Your task to perform on an android device: Open calendar and show me the fourth week of next month Image 0: 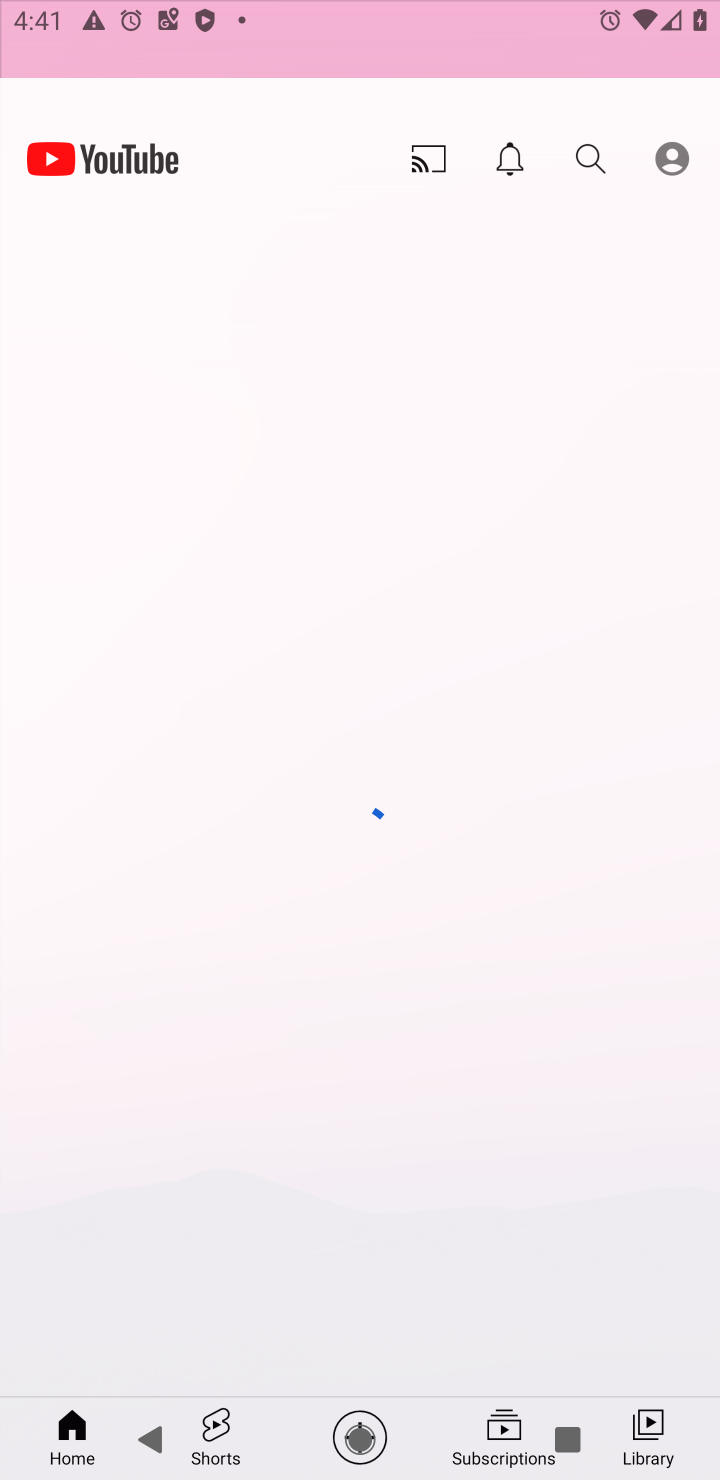
Step 0: press home button
Your task to perform on an android device: Open calendar and show me the fourth week of next month Image 1: 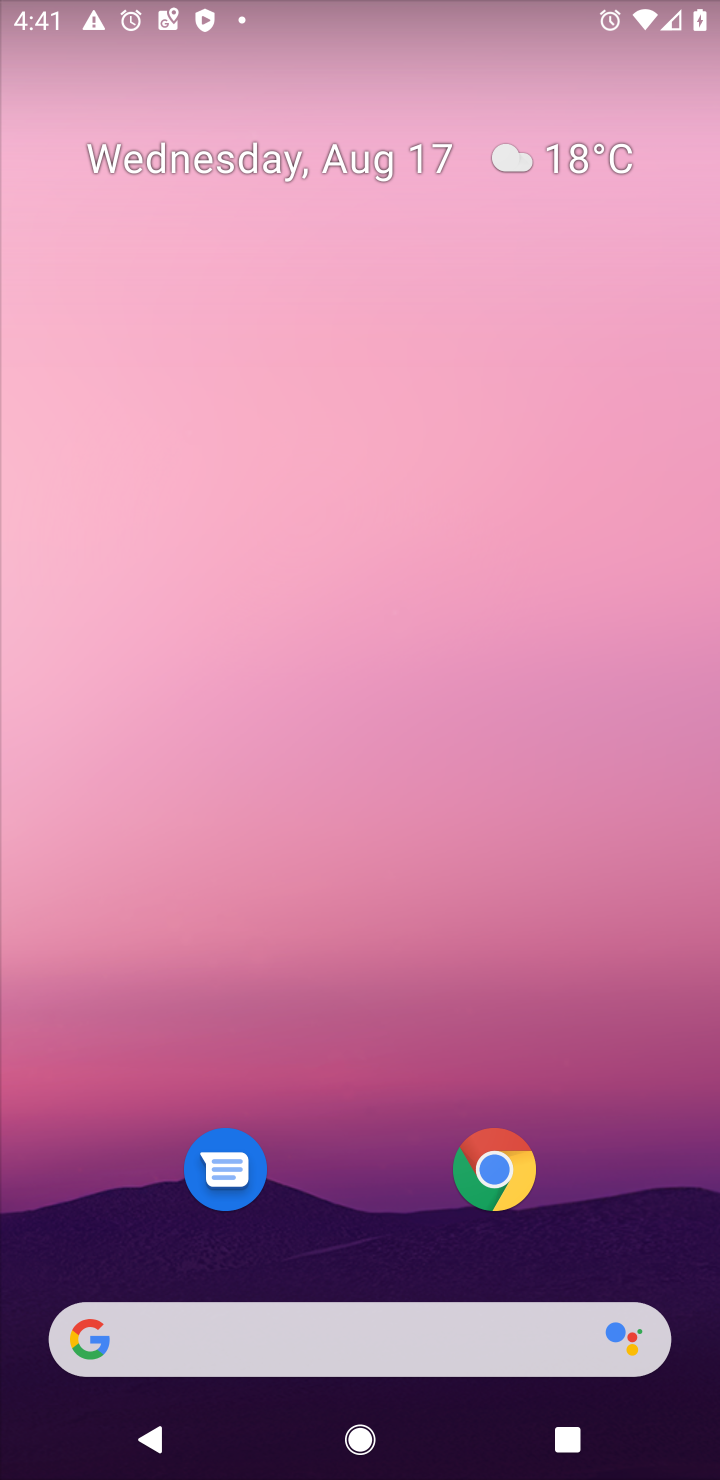
Step 1: drag from (330, 23) to (310, 1001)
Your task to perform on an android device: Open calendar and show me the fourth week of next month Image 2: 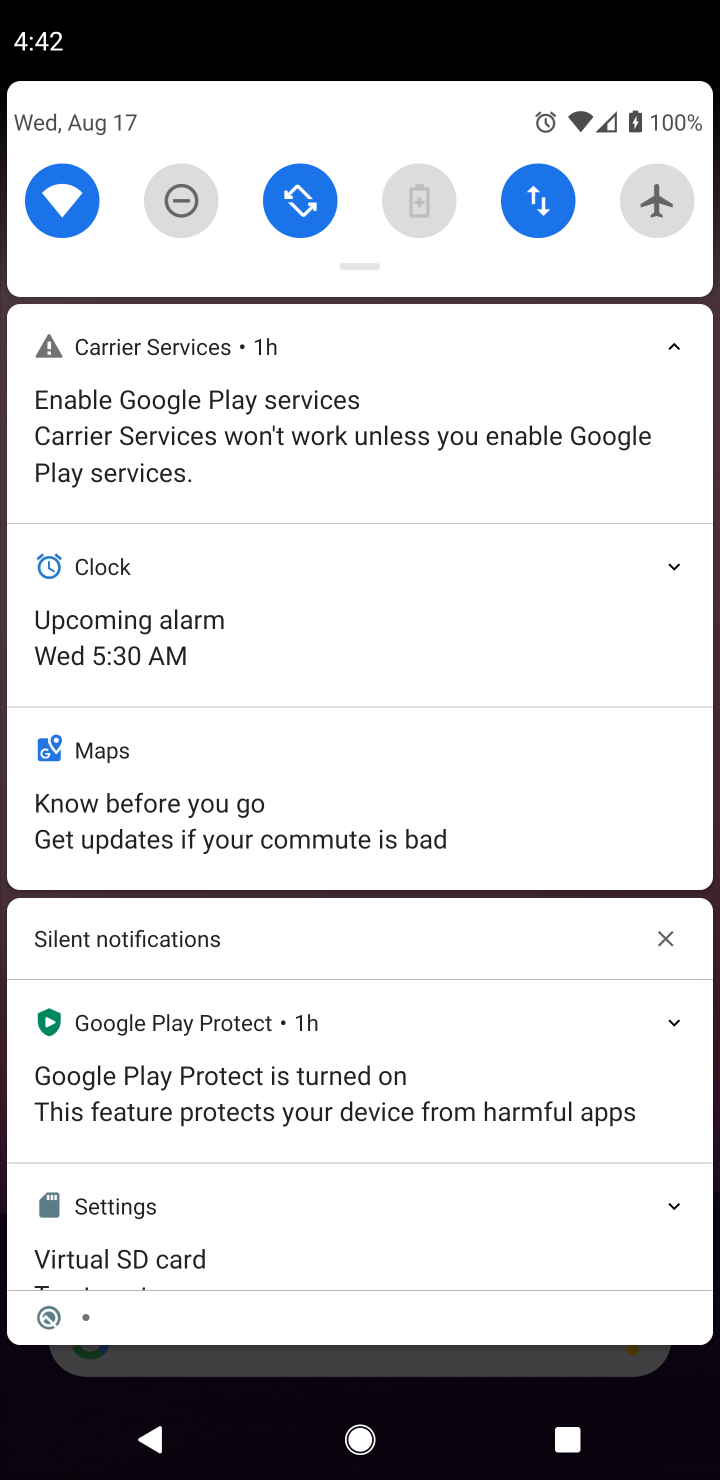
Step 2: press home button
Your task to perform on an android device: Open calendar and show me the fourth week of next month Image 3: 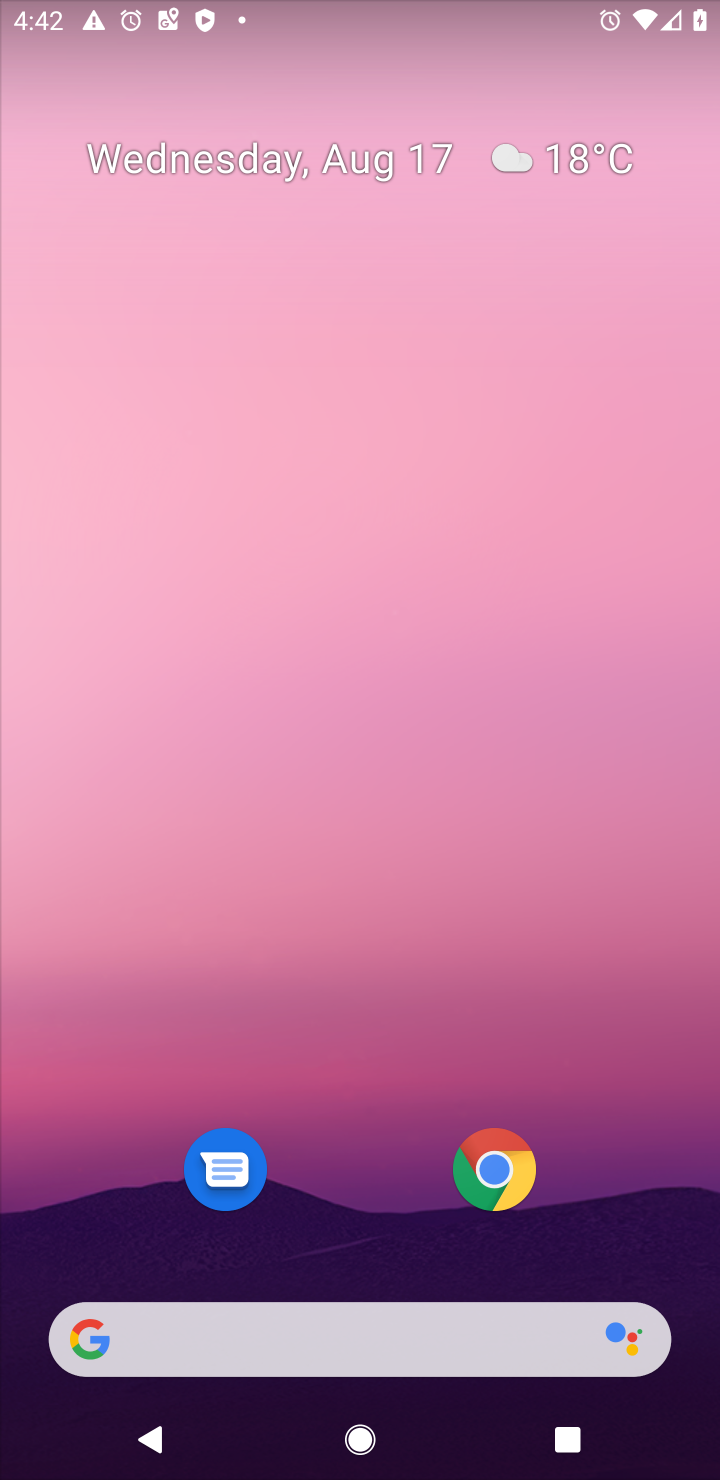
Step 3: drag from (382, 883) to (392, 201)
Your task to perform on an android device: Open calendar and show me the fourth week of next month Image 4: 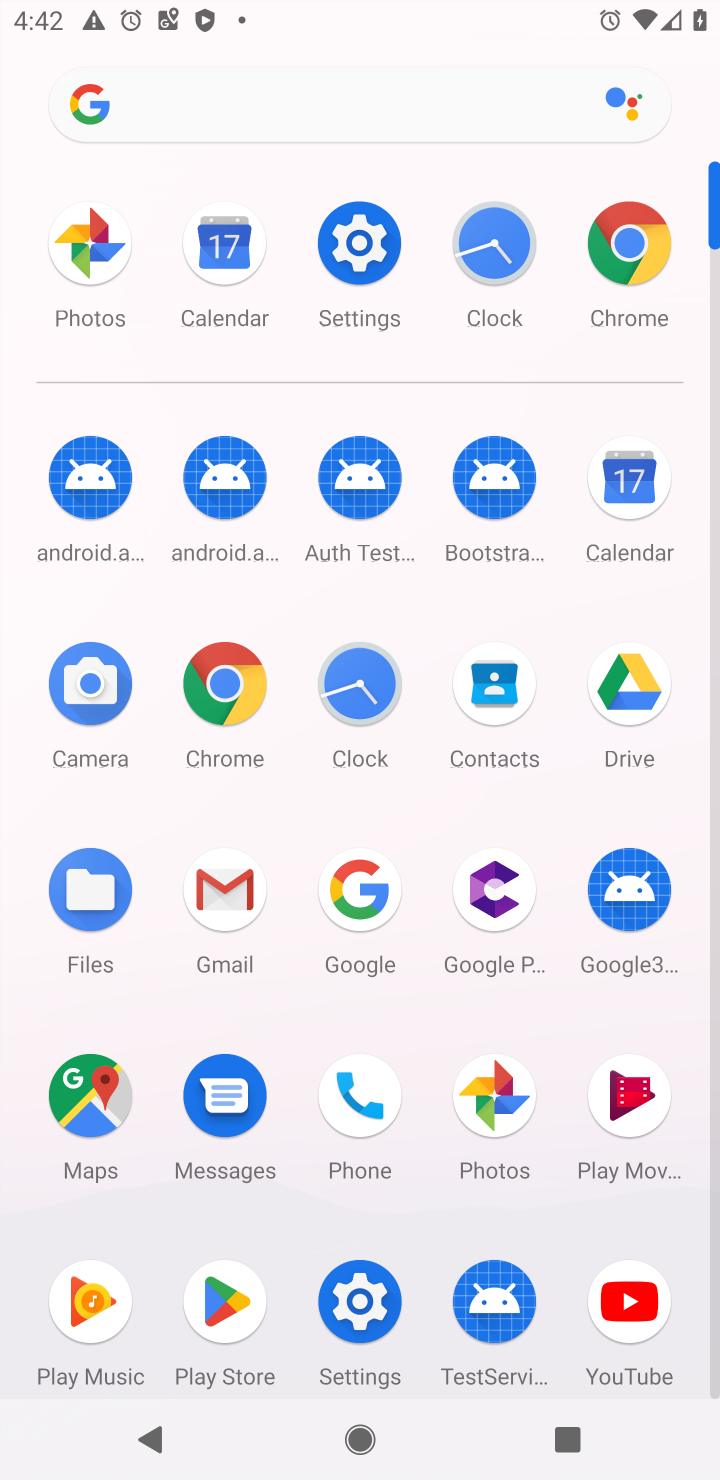
Step 4: click (225, 225)
Your task to perform on an android device: Open calendar and show me the fourth week of next month Image 5: 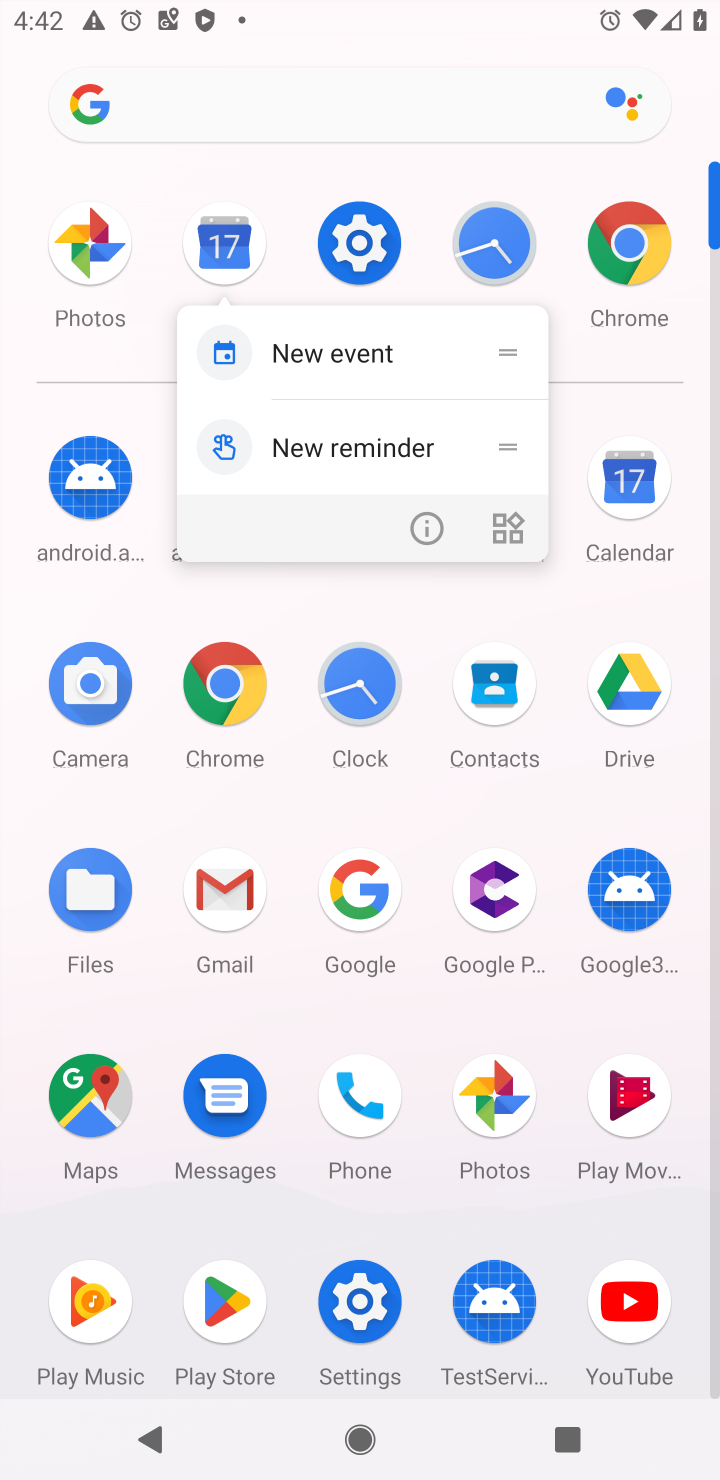
Step 5: click (646, 478)
Your task to perform on an android device: Open calendar and show me the fourth week of next month Image 6: 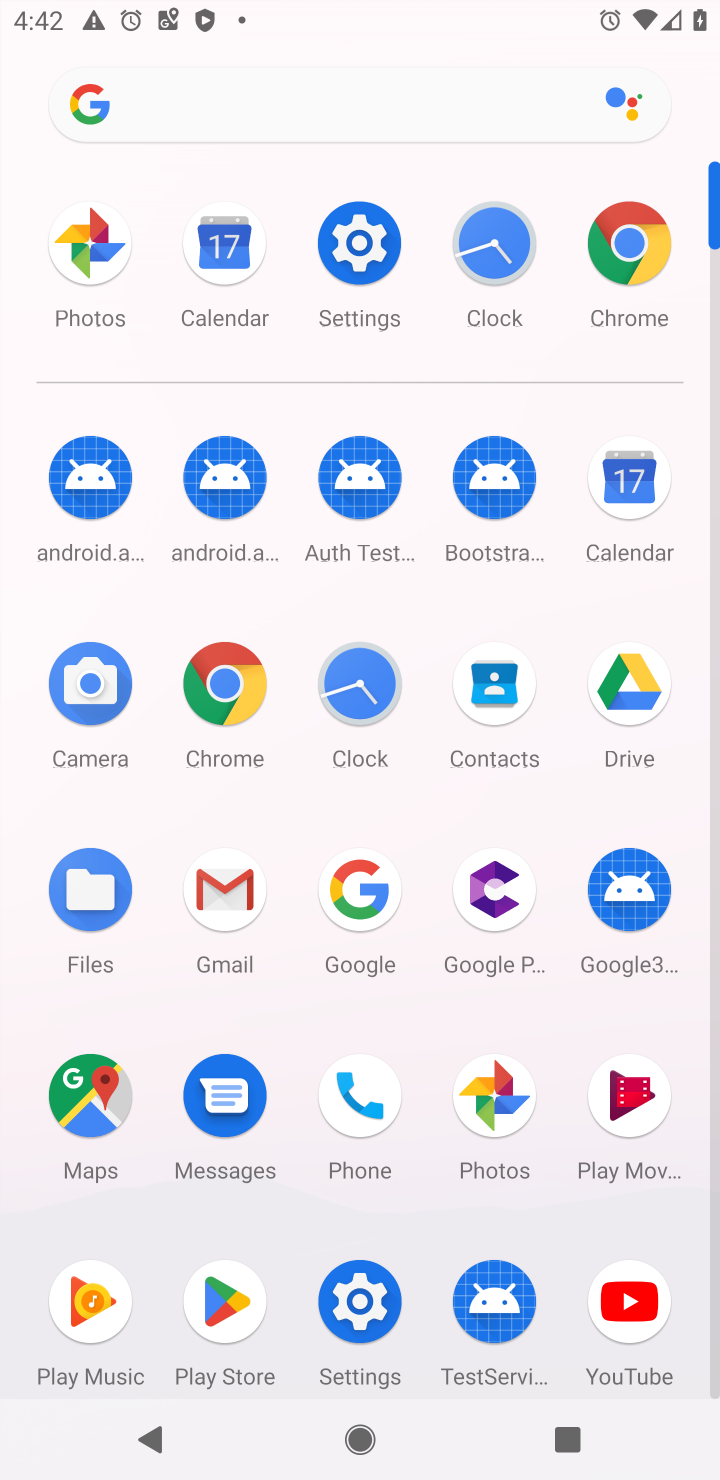
Step 6: click (607, 480)
Your task to perform on an android device: Open calendar and show me the fourth week of next month Image 7: 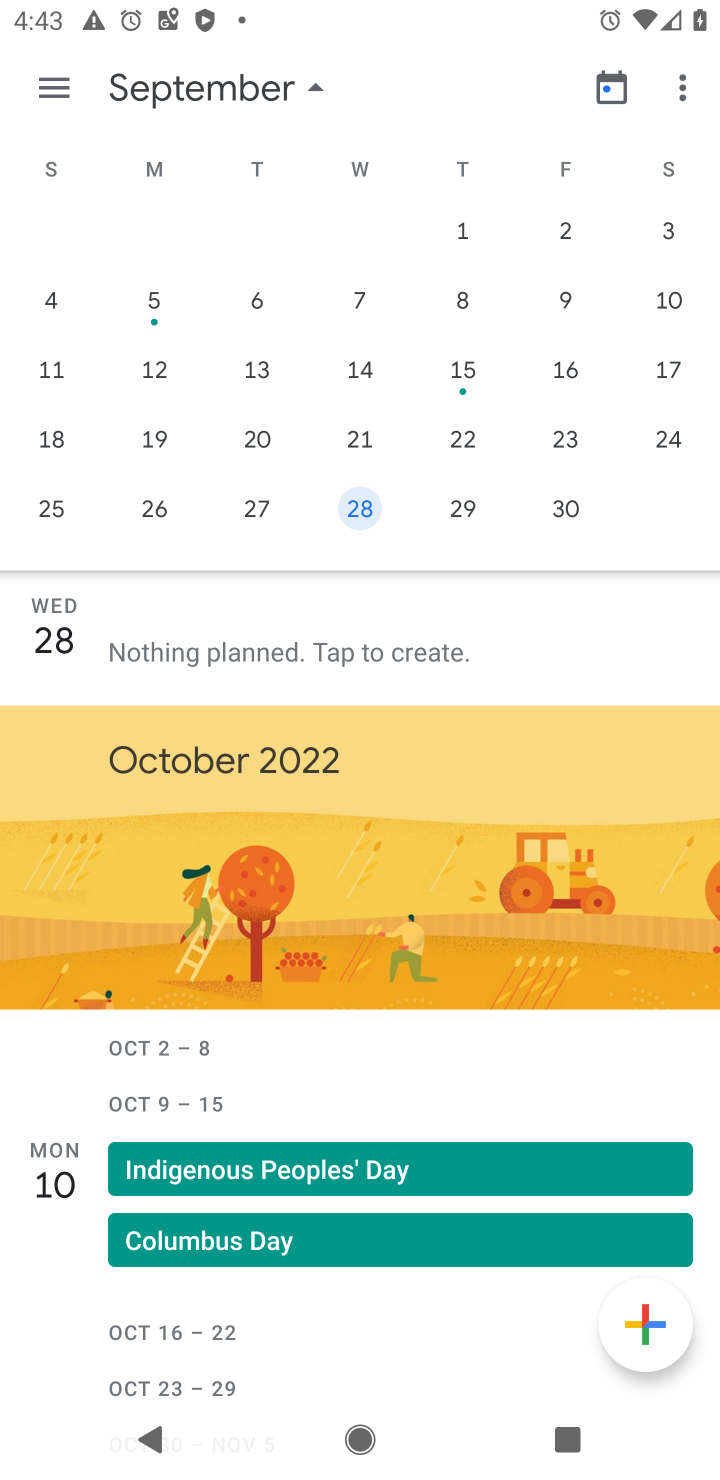
Step 7: click (347, 490)
Your task to perform on an android device: Open calendar and show me the fourth week of next month Image 8: 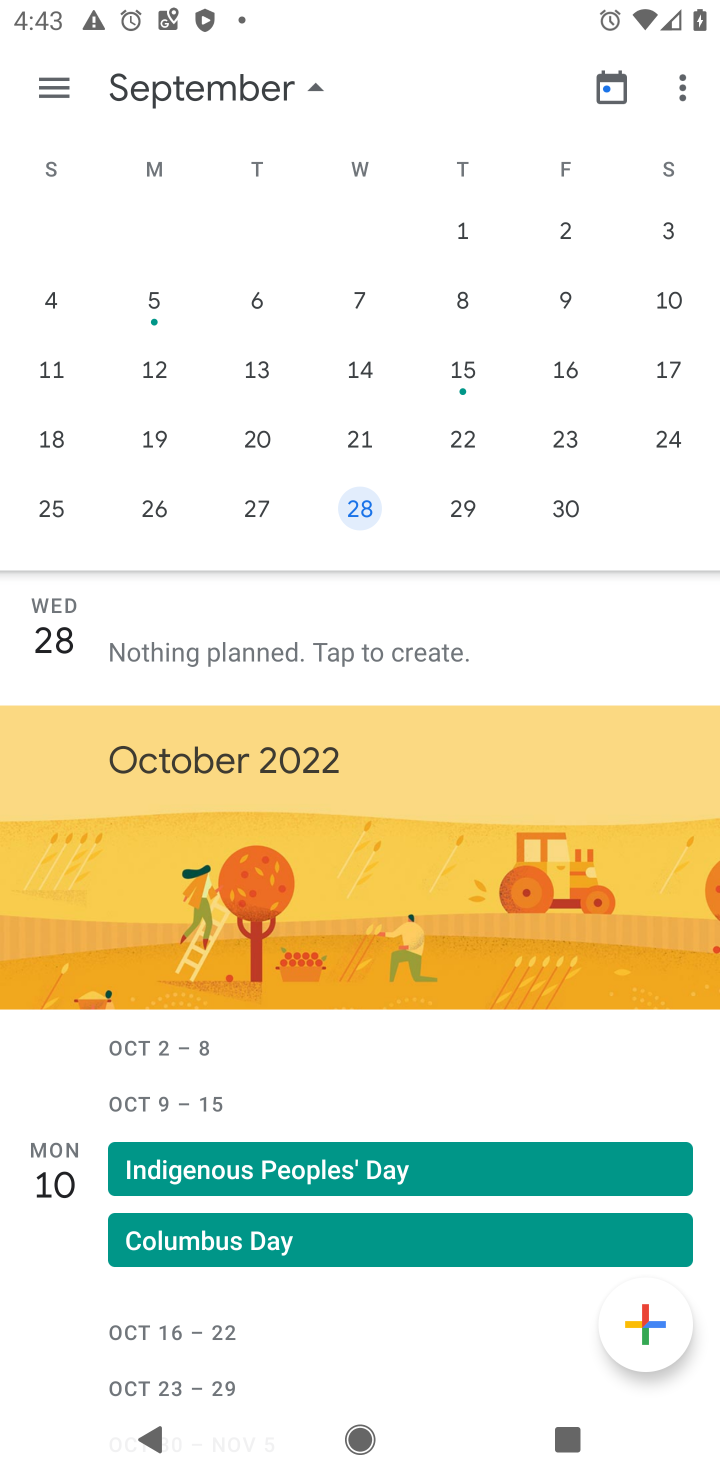
Step 8: task complete